Your task to perform on an android device: Open the downloads Image 0: 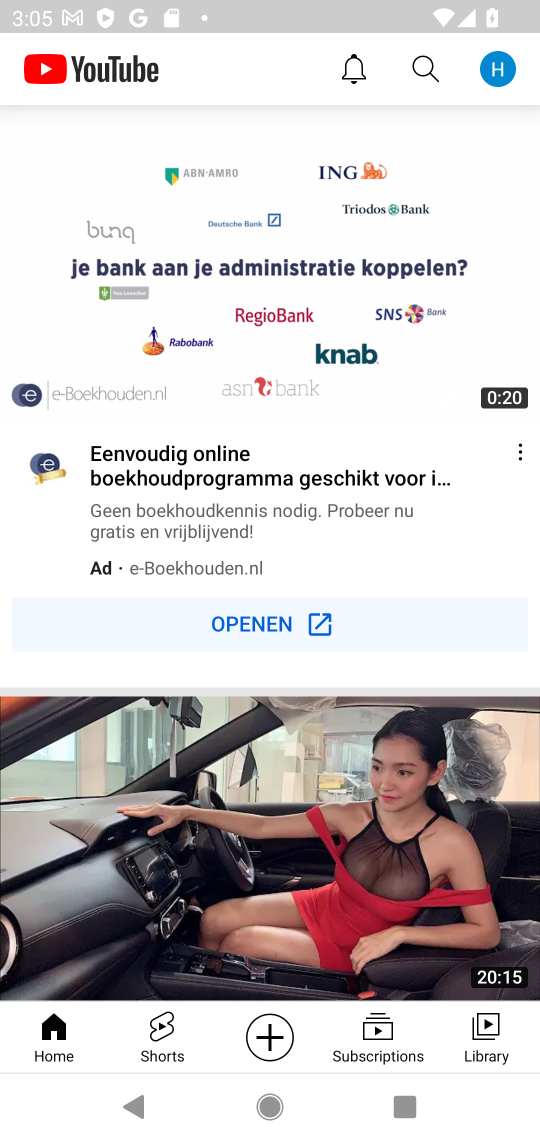
Step 0: press home button
Your task to perform on an android device: Open the downloads Image 1: 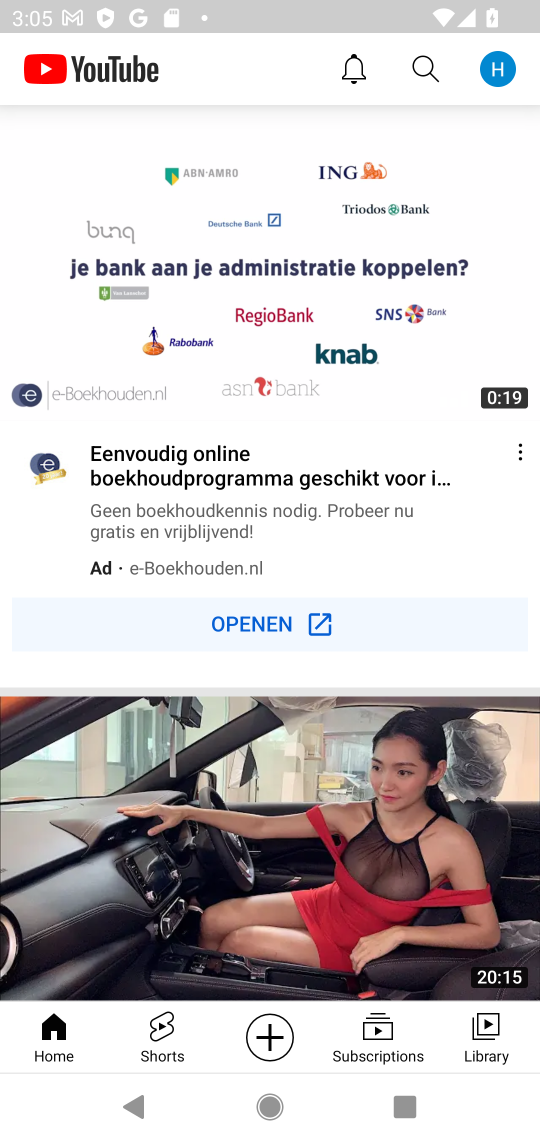
Step 1: press home button
Your task to perform on an android device: Open the downloads Image 2: 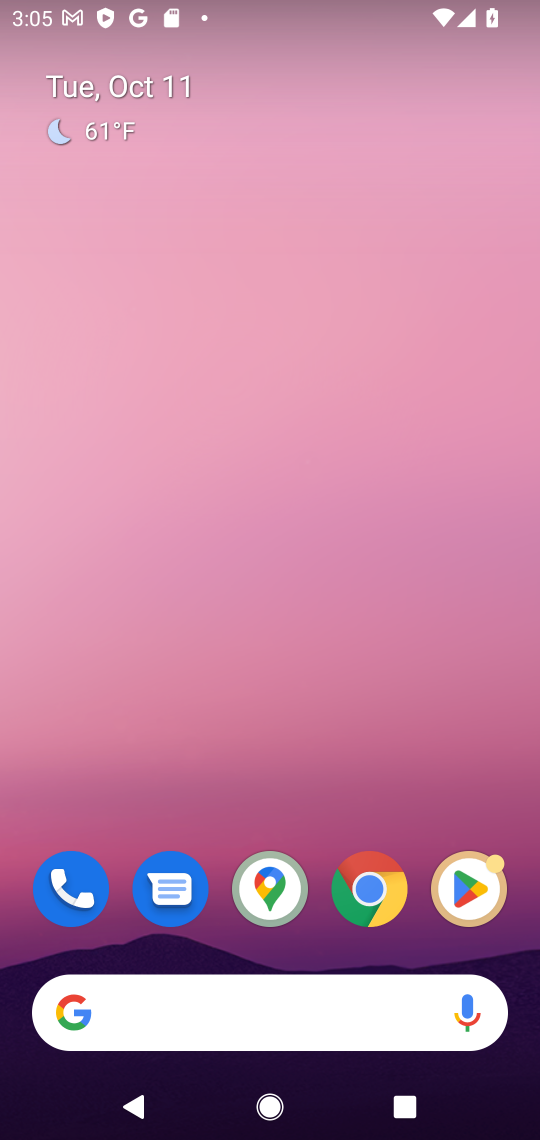
Step 2: drag from (187, 879) to (195, 310)
Your task to perform on an android device: Open the downloads Image 3: 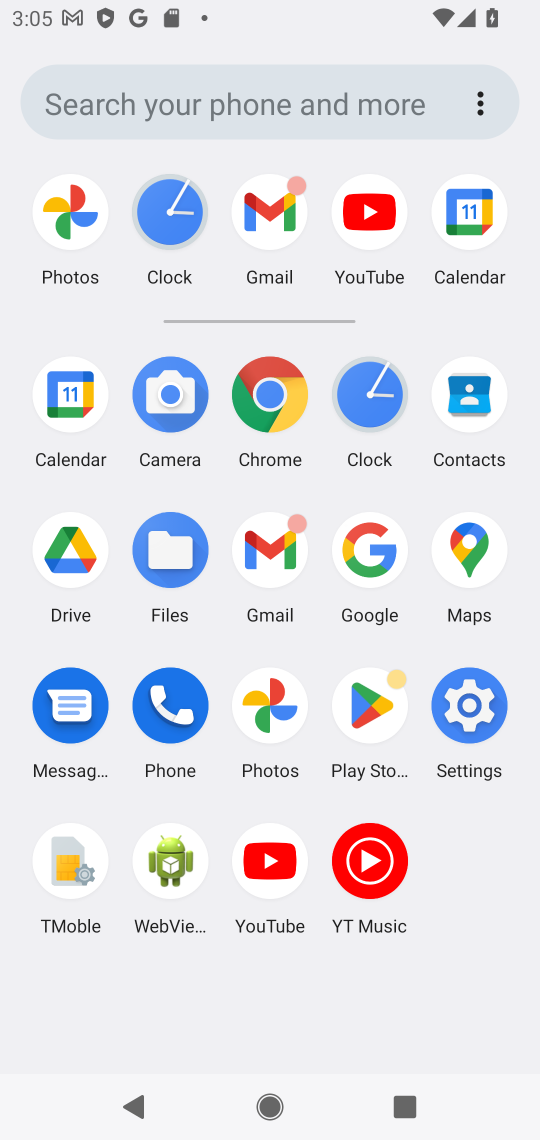
Step 3: click (364, 712)
Your task to perform on an android device: Open the downloads Image 4: 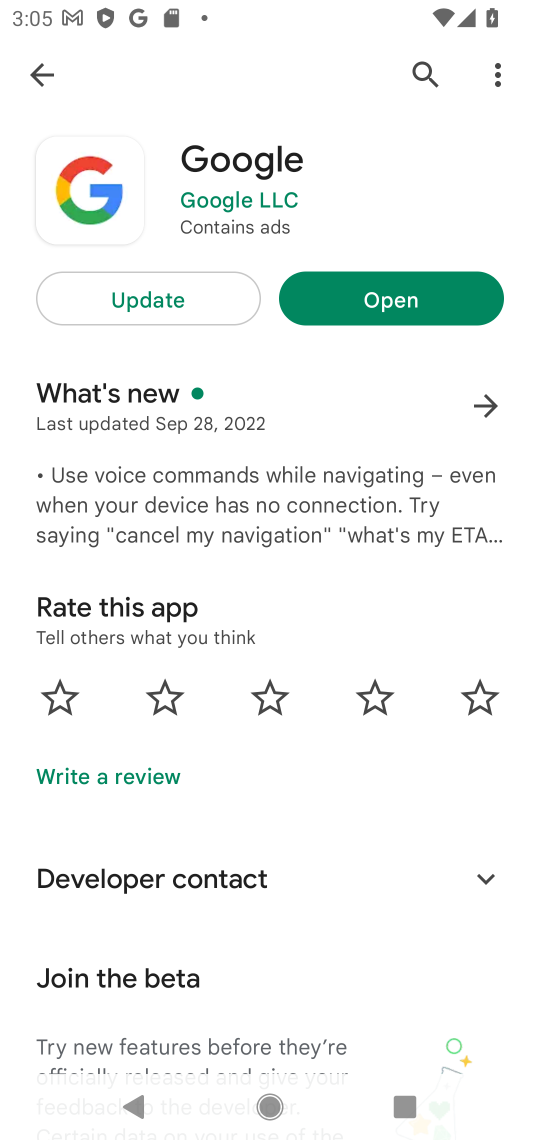
Step 4: click (51, 84)
Your task to perform on an android device: Open the downloads Image 5: 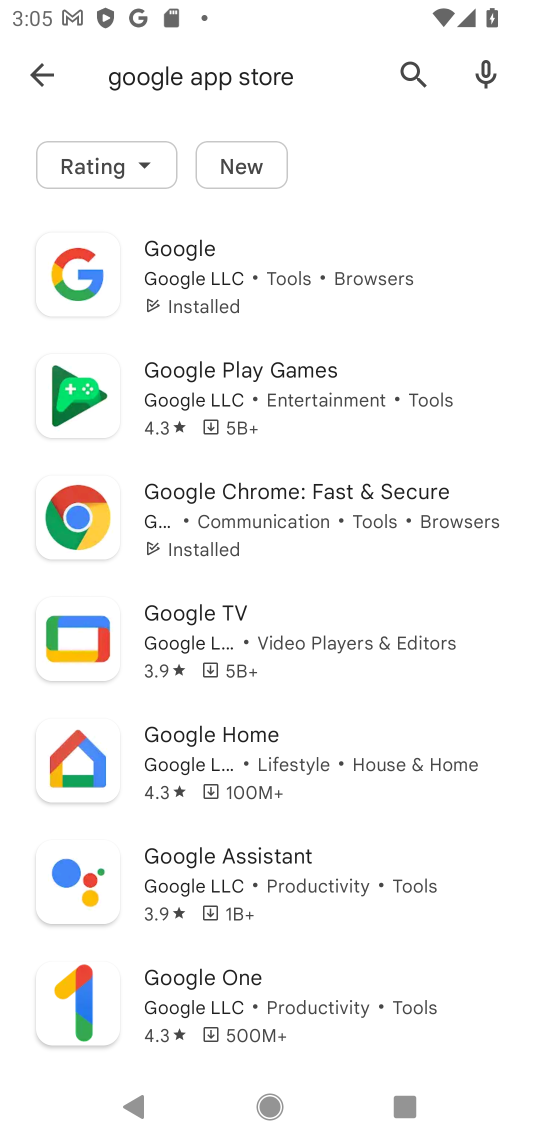
Step 5: click (66, 84)
Your task to perform on an android device: Open the downloads Image 6: 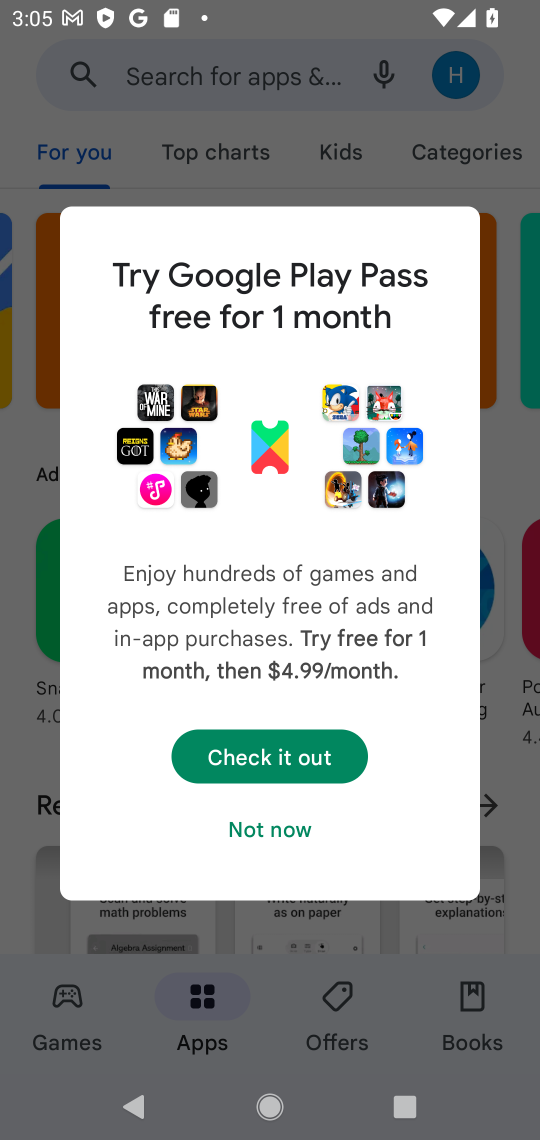
Step 6: click (265, 838)
Your task to perform on an android device: Open the downloads Image 7: 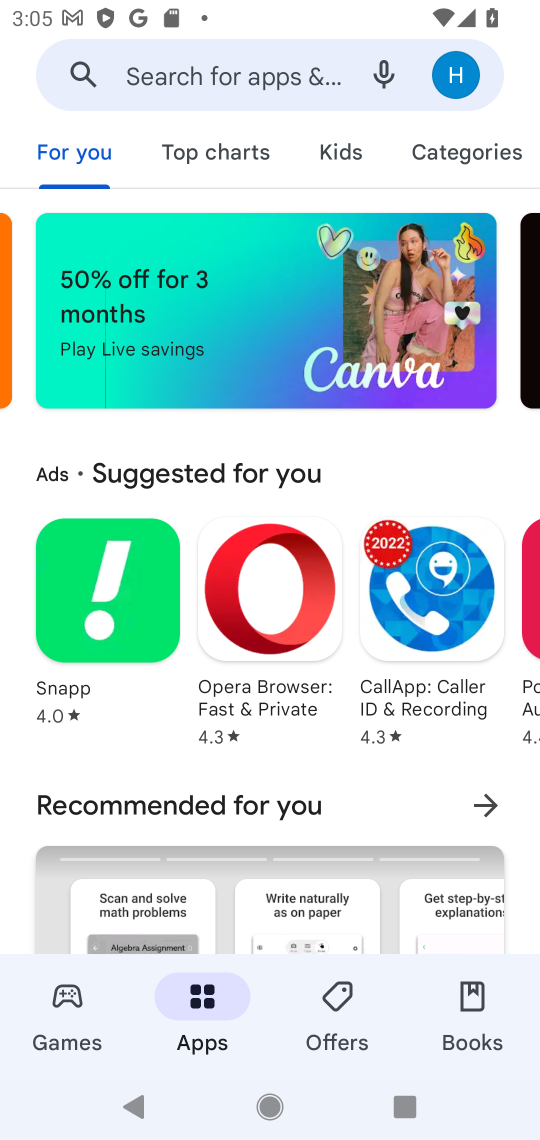
Step 7: drag from (326, 865) to (320, 207)
Your task to perform on an android device: Open the downloads Image 8: 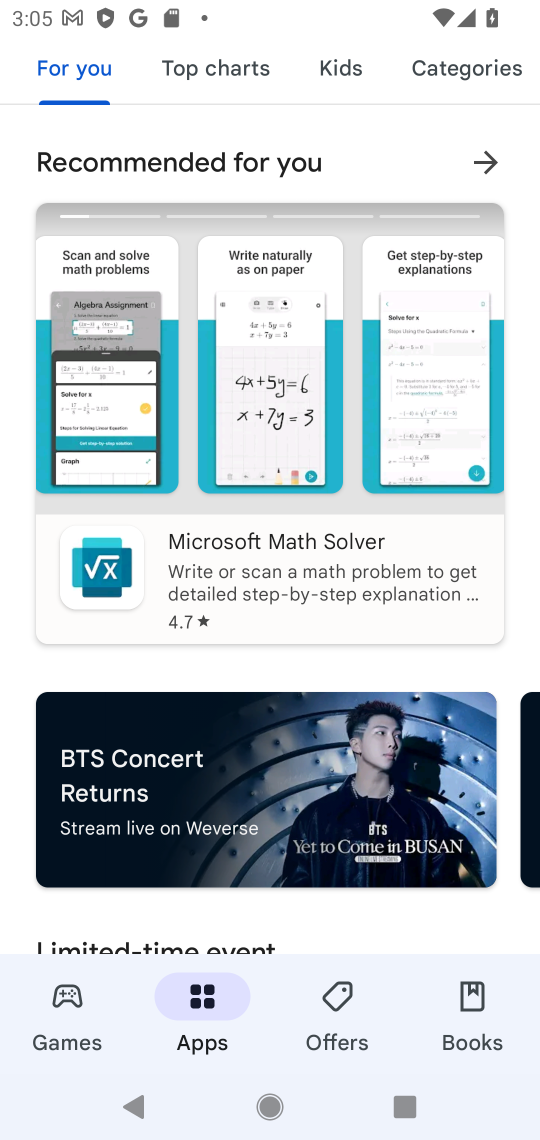
Step 8: drag from (262, 873) to (283, 316)
Your task to perform on an android device: Open the downloads Image 9: 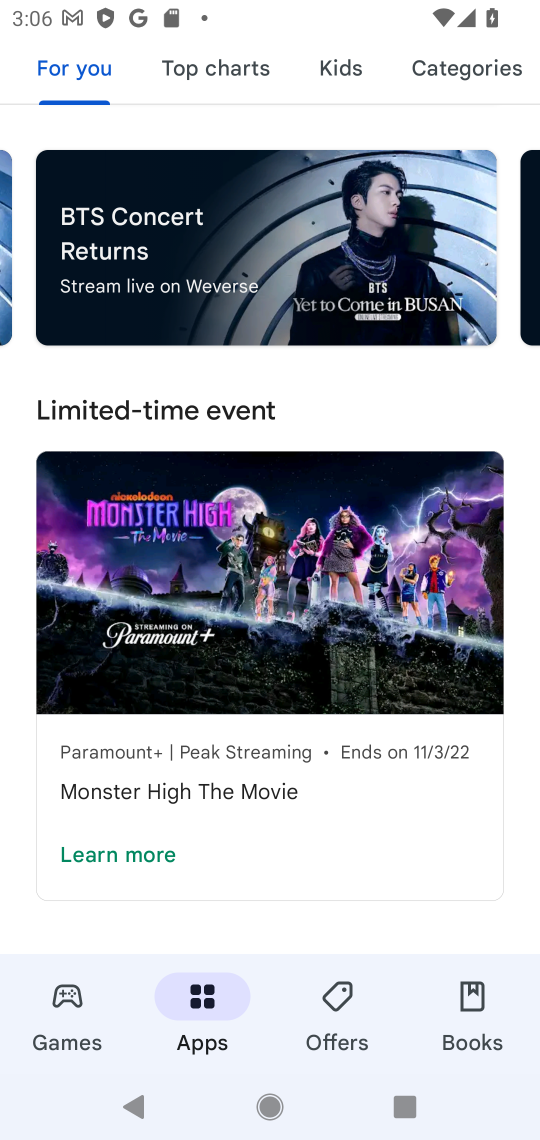
Step 9: click (75, 1000)
Your task to perform on an android device: Open the downloads Image 10: 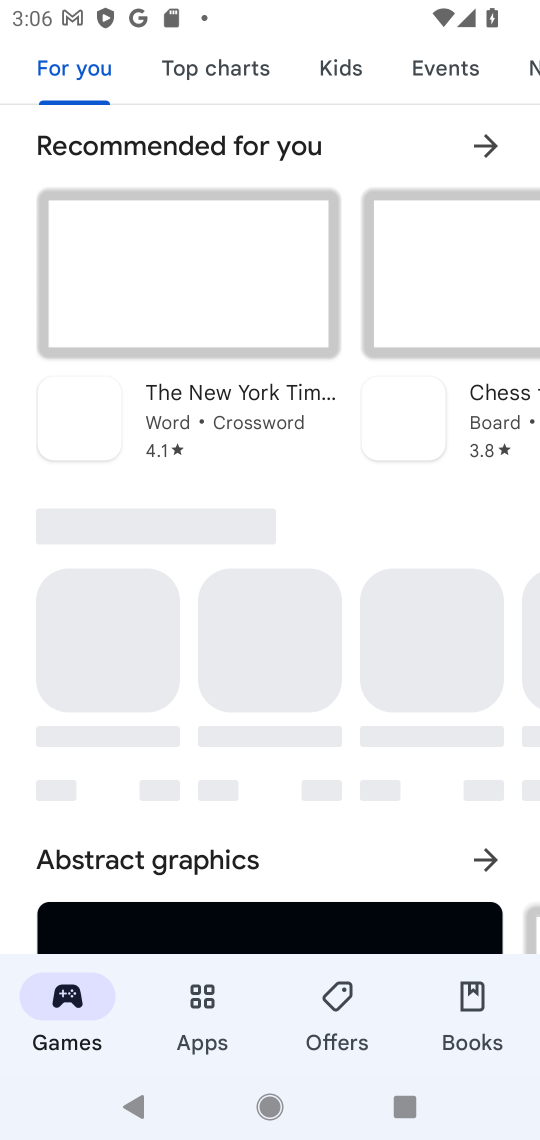
Step 10: click (200, 982)
Your task to perform on an android device: Open the downloads Image 11: 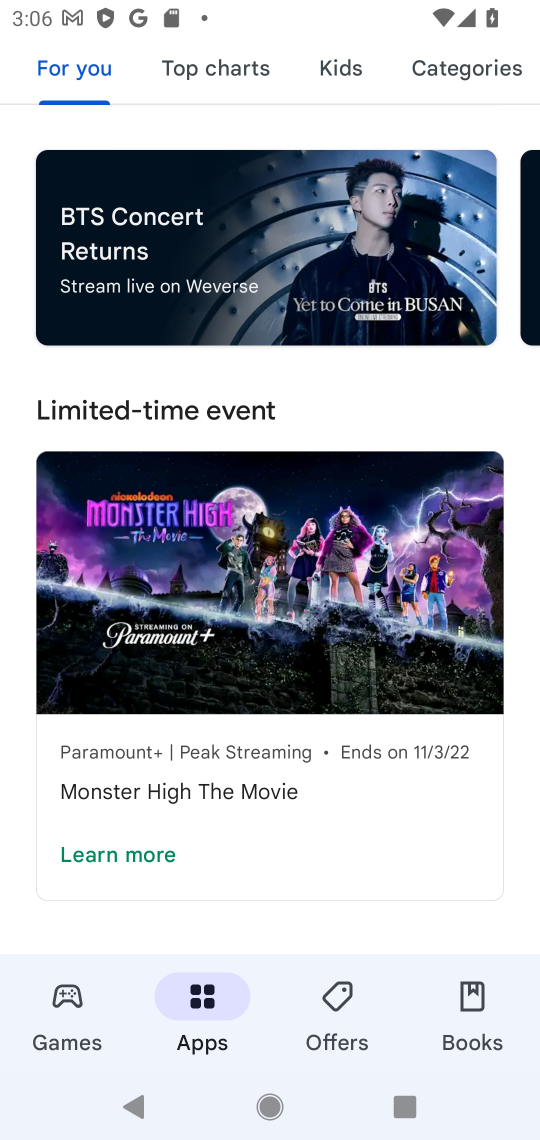
Step 11: click (196, 1032)
Your task to perform on an android device: Open the downloads Image 12: 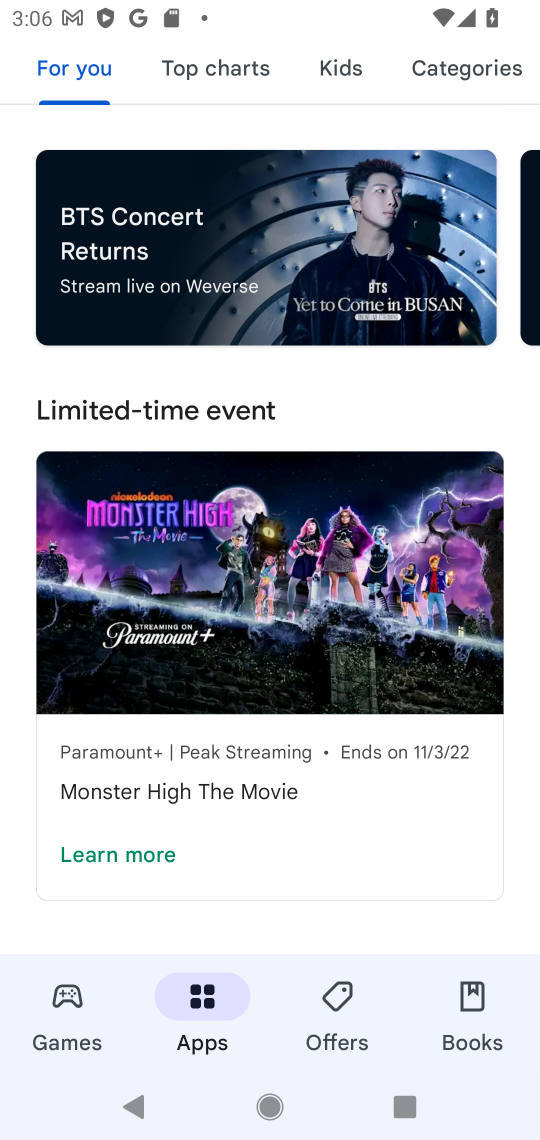
Step 12: press home button
Your task to perform on an android device: Open the downloads Image 13: 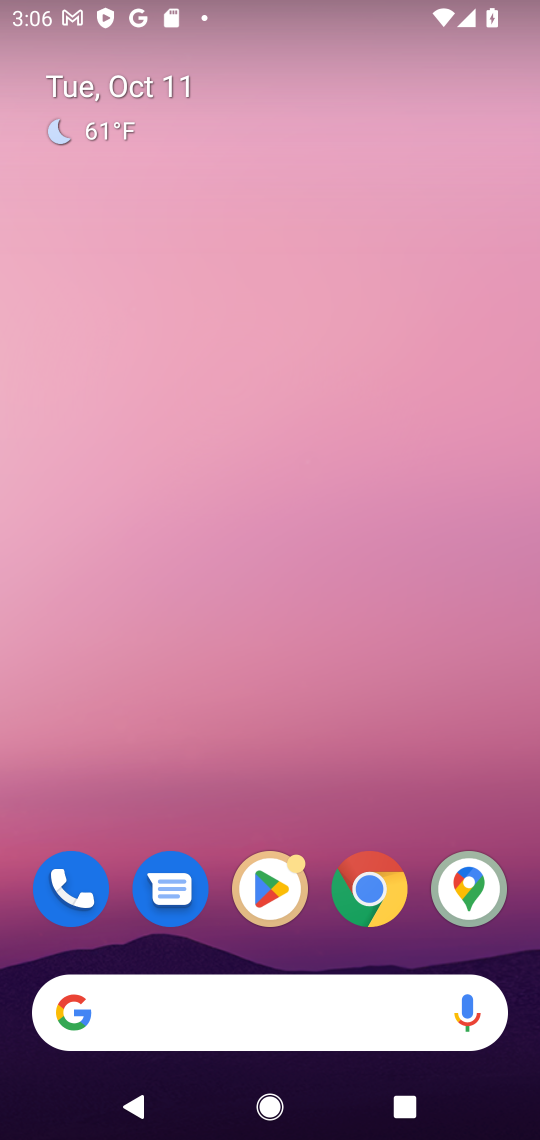
Step 13: drag from (162, 874) to (168, 441)
Your task to perform on an android device: Open the downloads Image 14: 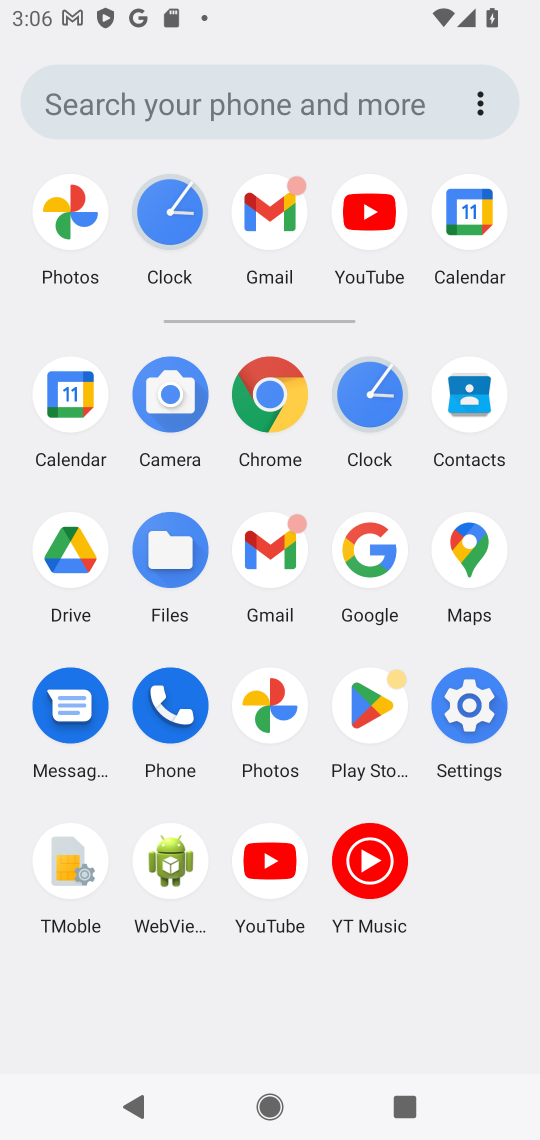
Step 14: click (451, 706)
Your task to perform on an android device: Open the downloads Image 15: 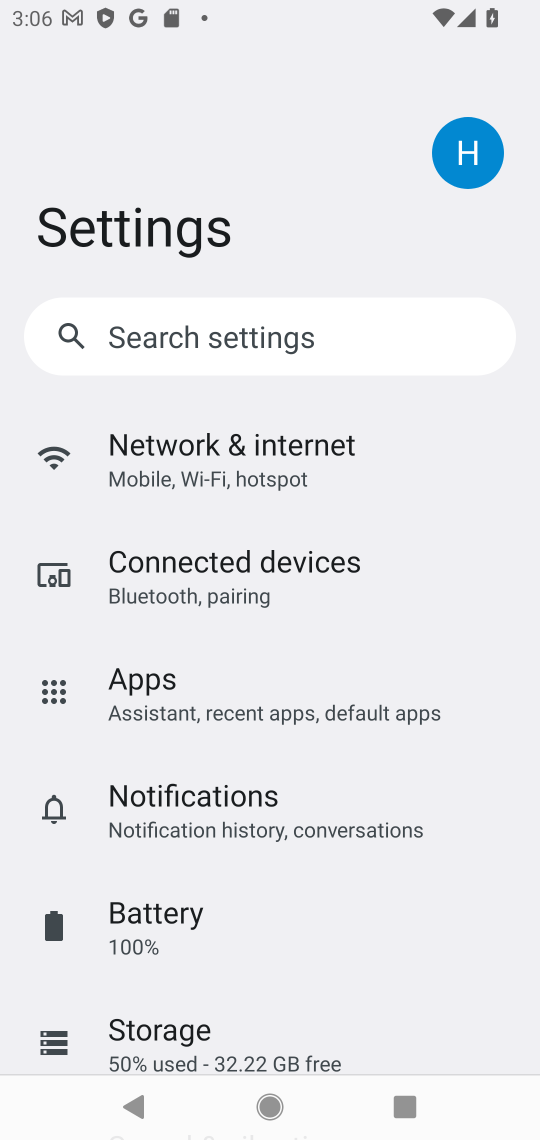
Step 15: drag from (199, 937) to (294, 444)
Your task to perform on an android device: Open the downloads Image 16: 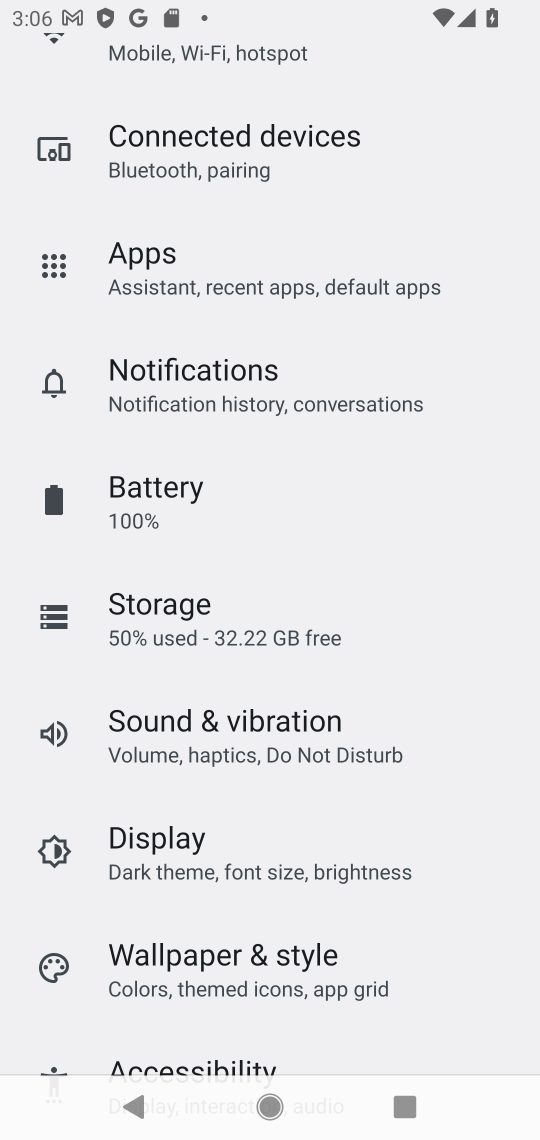
Step 16: press home button
Your task to perform on an android device: Open the downloads Image 17: 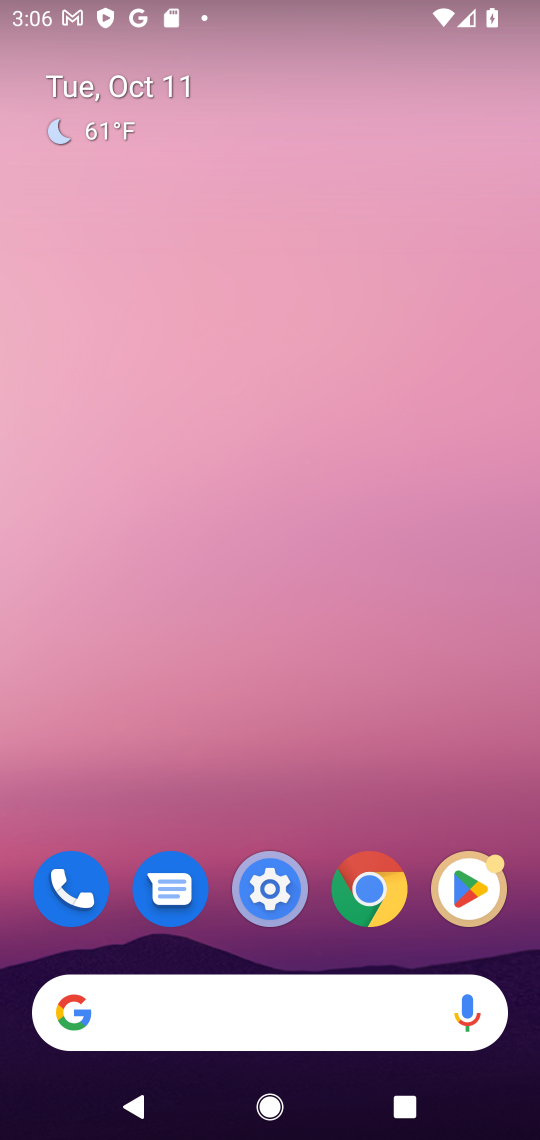
Step 17: drag from (353, 788) to (315, 289)
Your task to perform on an android device: Open the downloads Image 18: 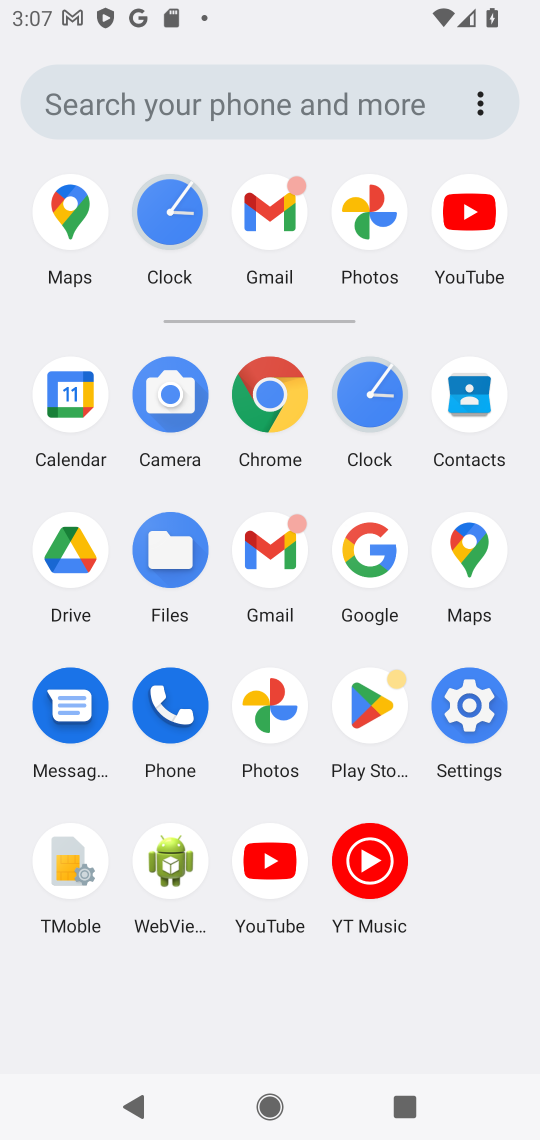
Step 18: click (364, 543)
Your task to perform on an android device: Open the downloads Image 19: 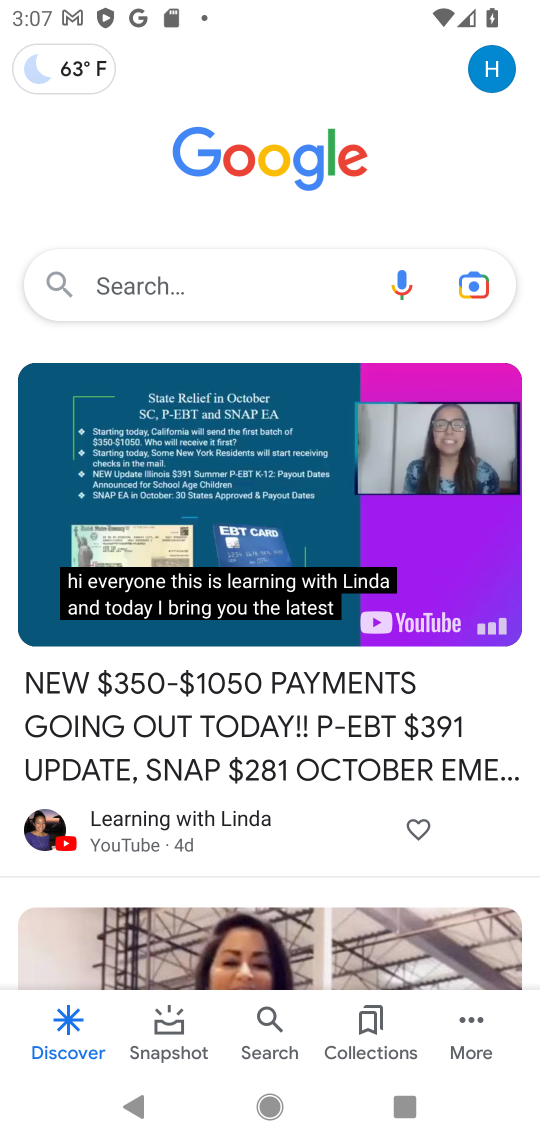
Step 19: task complete